Your task to perform on an android device: toggle data saver in the chrome app Image 0: 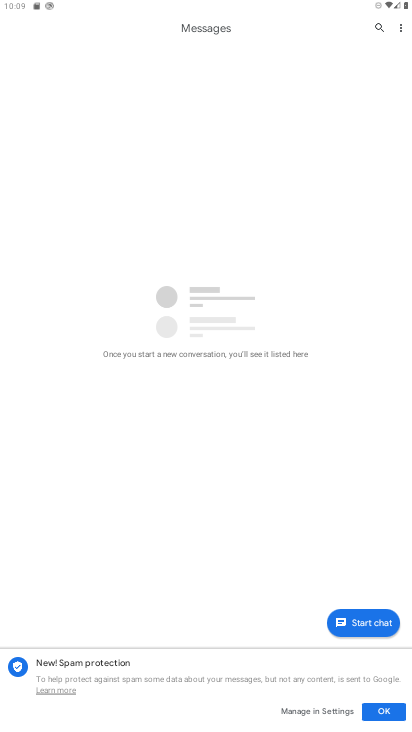
Step 0: press home button
Your task to perform on an android device: toggle data saver in the chrome app Image 1: 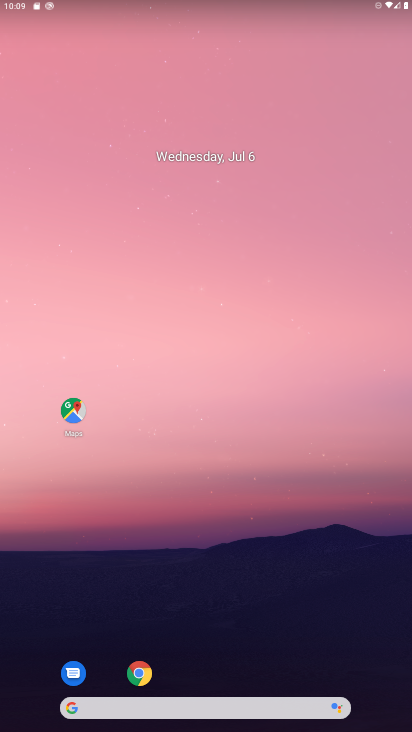
Step 1: click (144, 671)
Your task to perform on an android device: toggle data saver in the chrome app Image 2: 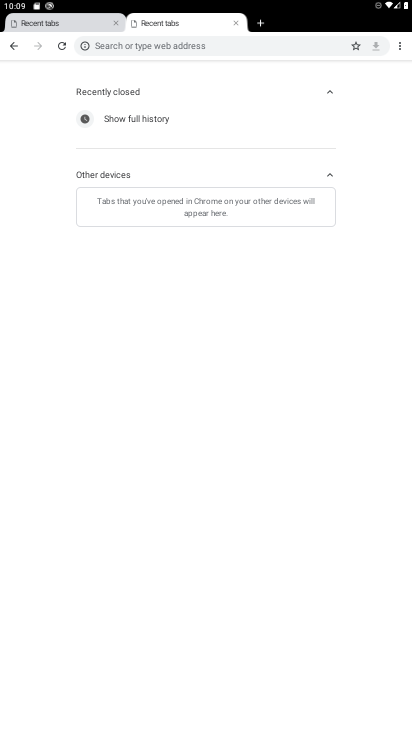
Step 2: click (399, 49)
Your task to perform on an android device: toggle data saver in the chrome app Image 3: 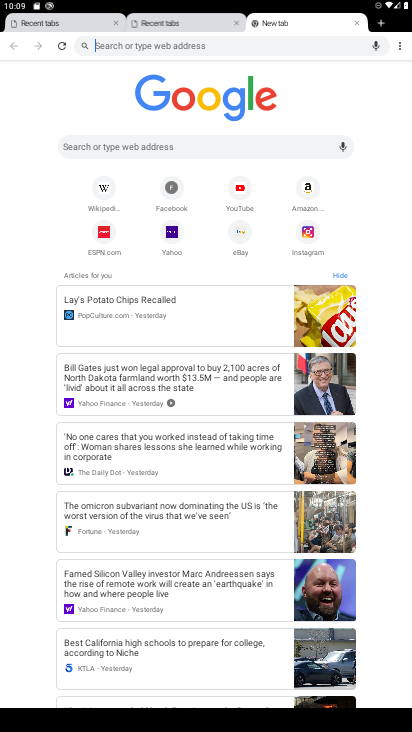
Step 3: click (405, 46)
Your task to perform on an android device: toggle data saver in the chrome app Image 4: 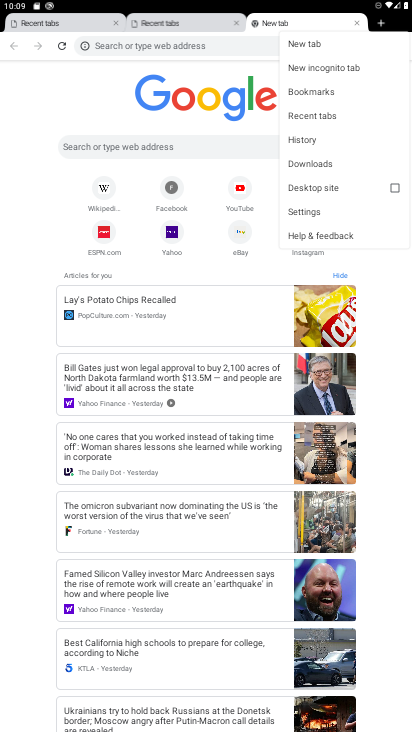
Step 4: click (305, 209)
Your task to perform on an android device: toggle data saver in the chrome app Image 5: 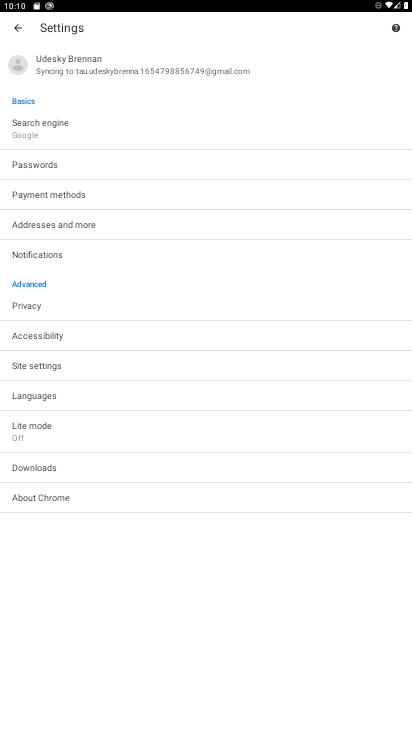
Step 5: click (81, 430)
Your task to perform on an android device: toggle data saver in the chrome app Image 6: 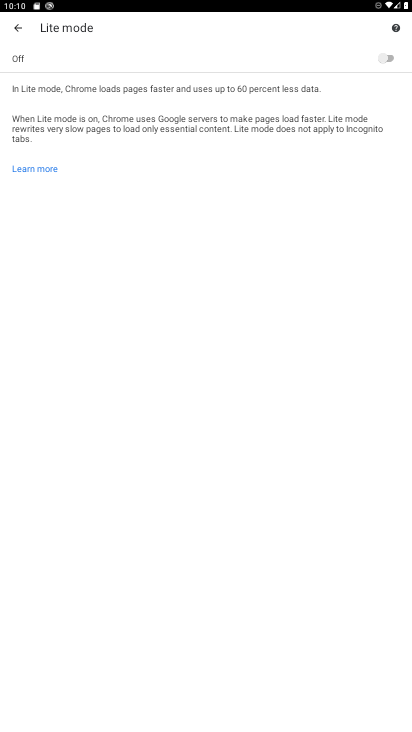
Step 6: click (392, 56)
Your task to perform on an android device: toggle data saver in the chrome app Image 7: 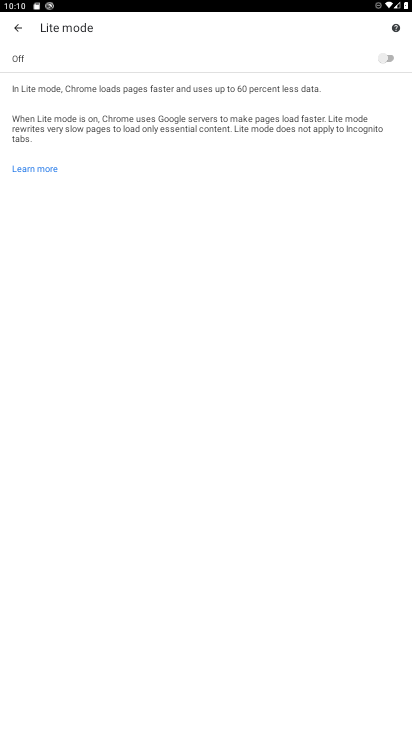
Step 7: click (392, 56)
Your task to perform on an android device: toggle data saver in the chrome app Image 8: 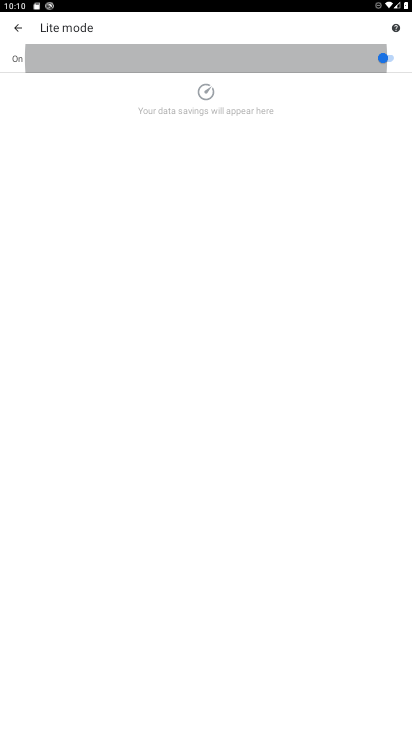
Step 8: click (392, 56)
Your task to perform on an android device: toggle data saver in the chrome app Image 9: 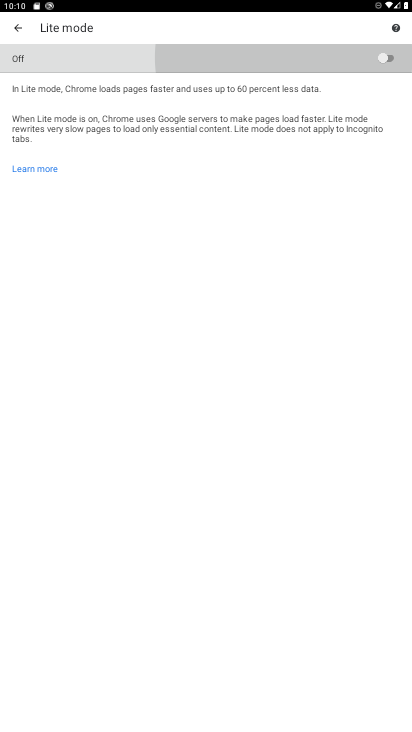
Step 9: click (392, 56)
Your task to perform on an android device: toggle data saver in the chrome app Image 10: 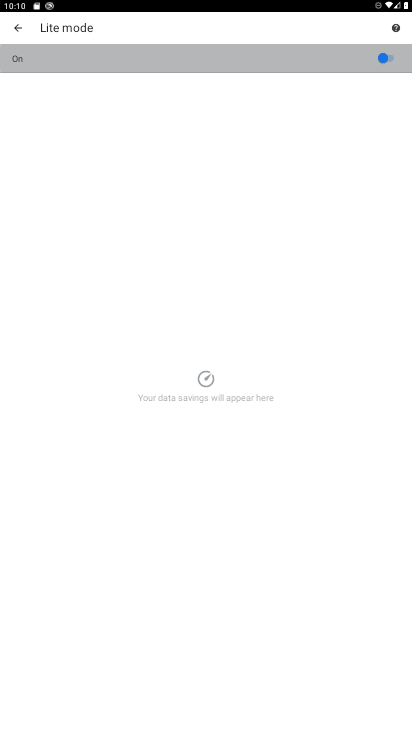
Step 10: click (392, 56)
Your task to perform on an android device: toggle data saver in the chrome app Image 11: 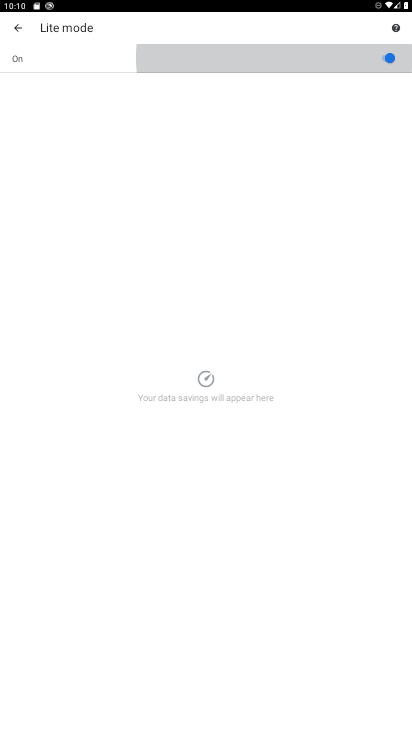
Step 11: click (392, 56)
Your task to perform on an android device: toggle data saver in the chrome app Image 12: 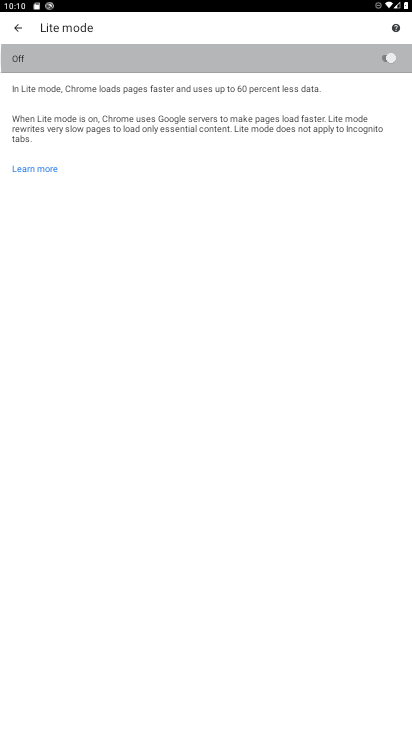
Step 12: click (392, 56)
Your task to perform on an android device: toggle data saver in the chrome app Image 13: 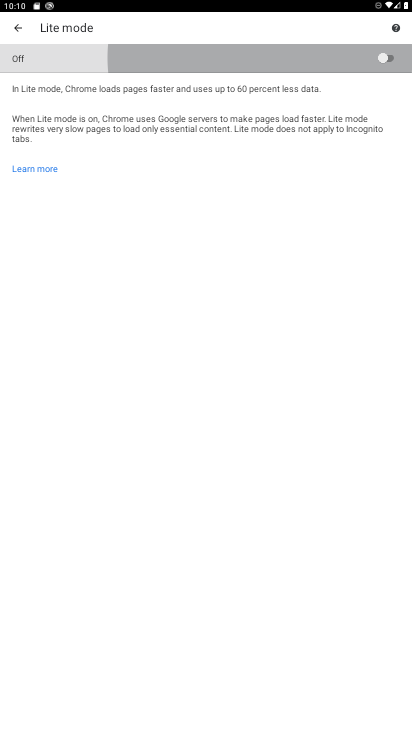
Step 13: click (392, 56)
Your task to perform on an android device: toggle data saver in the chrome app Image 14: 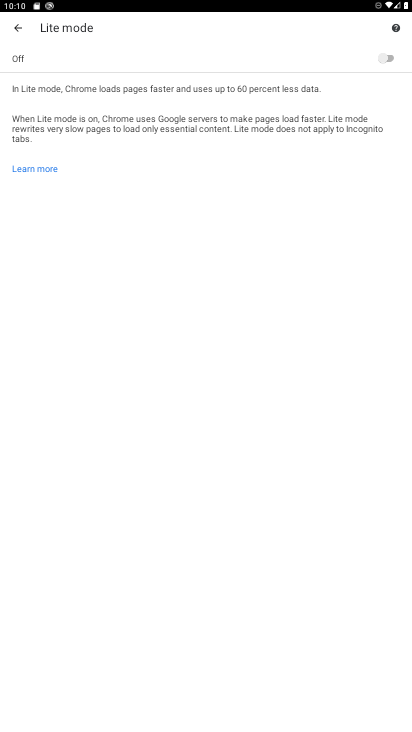
Step 14: task complete